Your task to perform on an android device: Open the web browser Image 0: 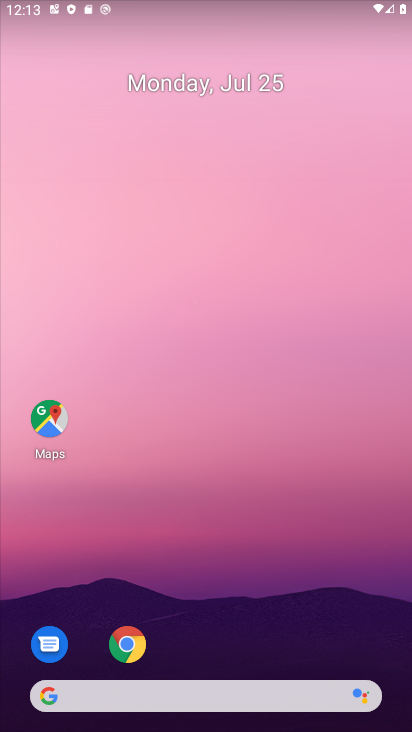
Step 0: drag from (337, 659) to (173, 19)
Your task to perform on an android device: Open the web browser Image 1: 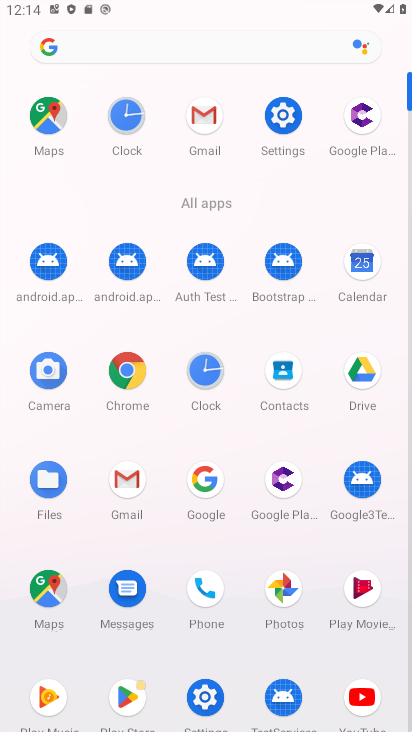
Step 1: click (207, 487)
Your task to perform on an android device: Open the web browser Image 2: 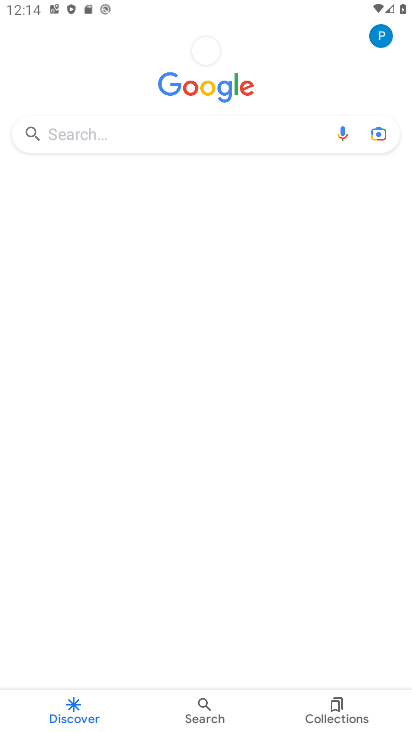
Step 2: click (95, 143)
Your task to perform on an android device: Open the web browser Image 3: 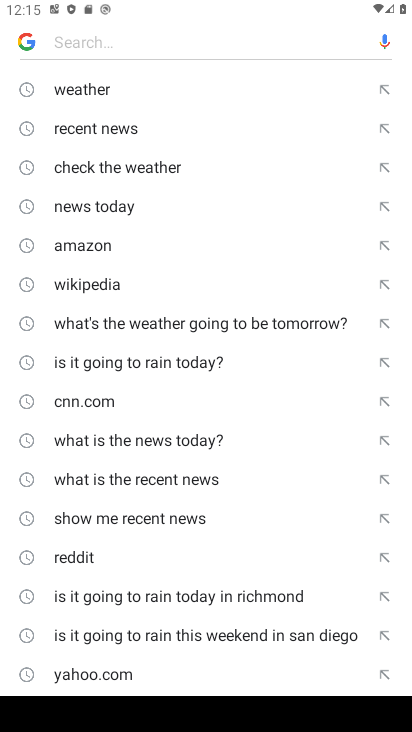
Step 3: type "web browser"
Your task to perform on an android device: Open the web browser Image 4: 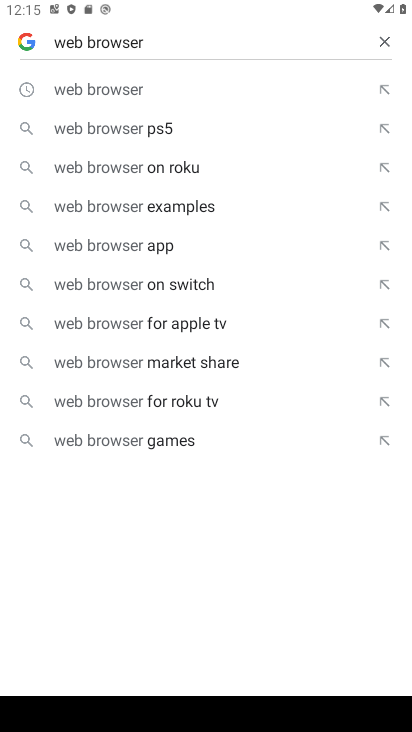
Step 4: click (128, 92)
Your task to perform on an android device: Open the web browser Image 5: 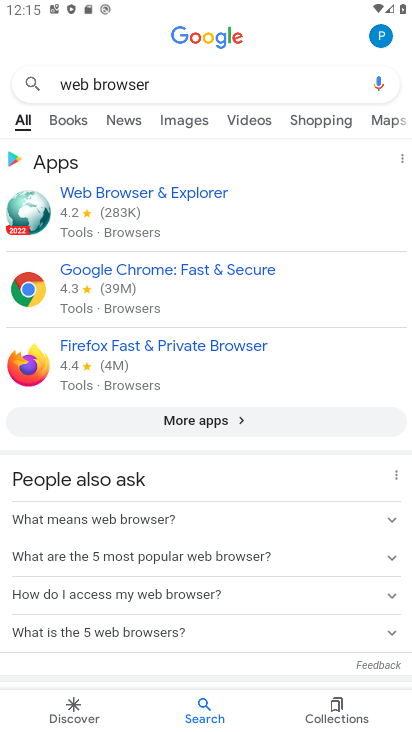
Step 5: task complete